Your task to perform on an android device: What's on my calendar tomorrow? Image 0: 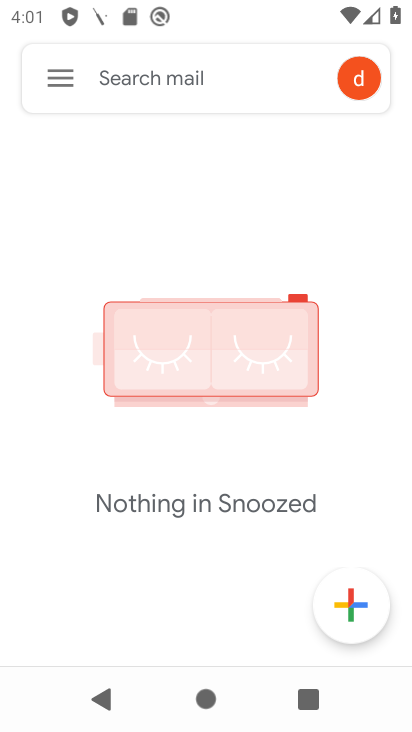
Step 0: press home button
Your task to perform on an android device: What's on my calendar tomorrow? Image 1: 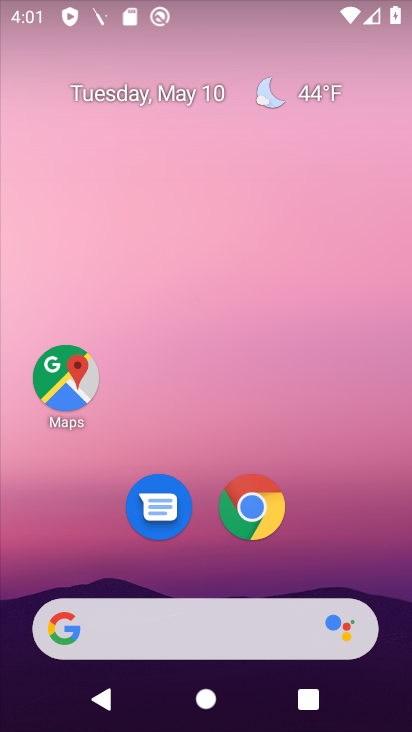
Step 1: drag from (282, 594) to (310, 105)
Your task to perform on an android device: What's on my calendar tomorrow? Image 2: 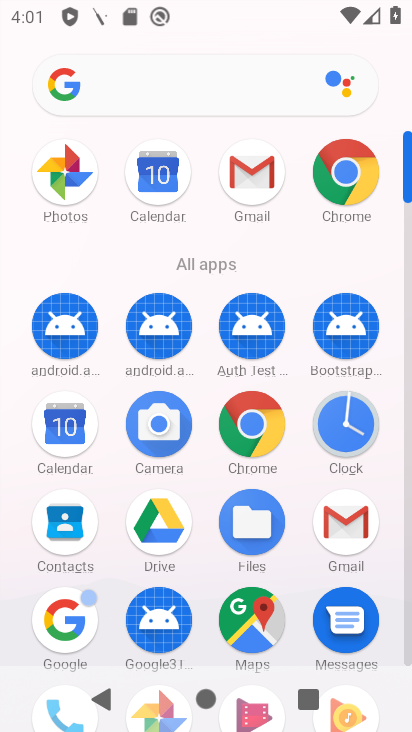
Step 2: click (47, 436)
Your task to perform on an android device: What's on my calendar tomorrow? Image 3: 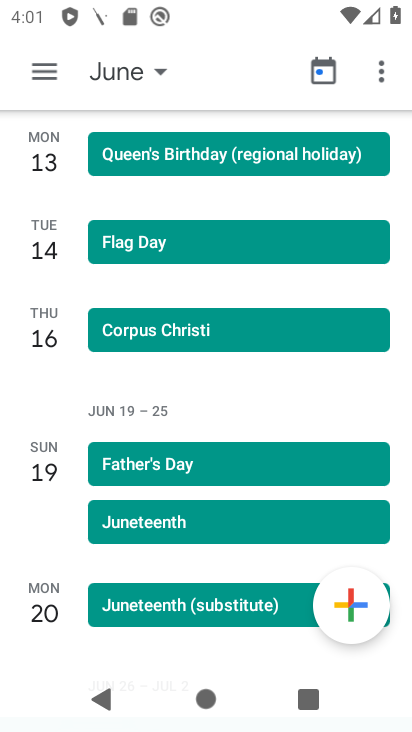
Step 3: click (32, 73)
Your task to perform on an android device: What's on my calendar tomorrow? Image 4: 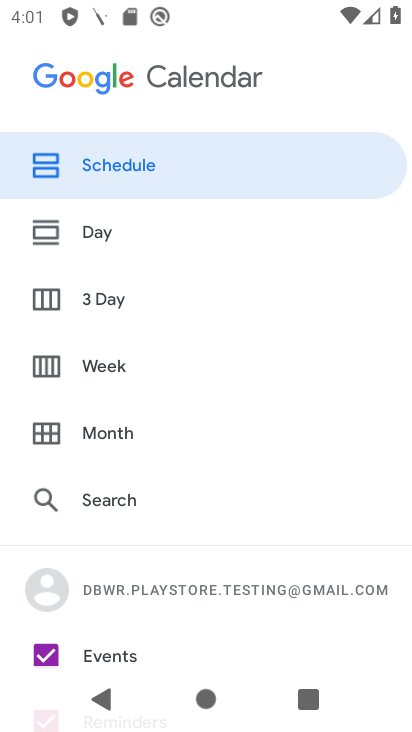
Step 4: click (129, 452)
Your task to perform on an android device: What's on my calendar tomorrow? Image 5: 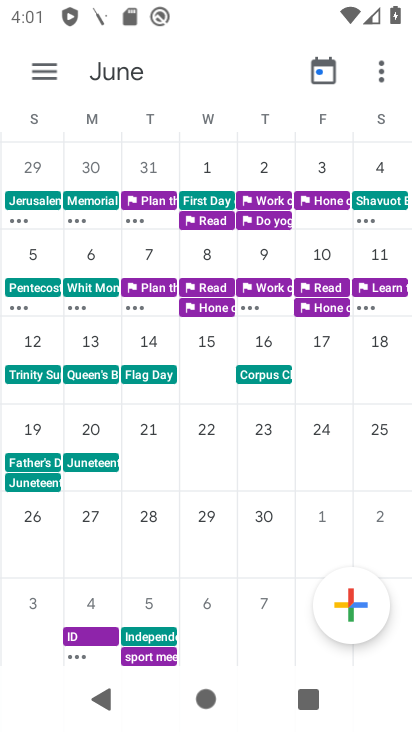
Step 5: drag from (127, 341) to (400, 433)
Your task to perform on an android device: What's on my calendar tomorrow? Image 6: 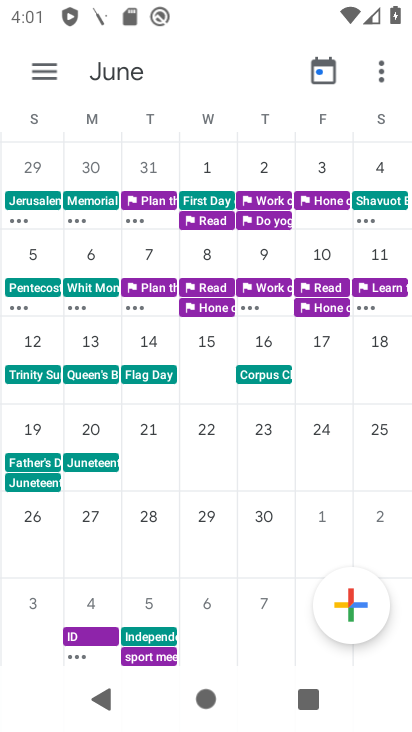
Step 6: drag from (40, 373) to (410, 376)
Your task to perform on an android device: What's on my calendar tomorrow? Image 7: 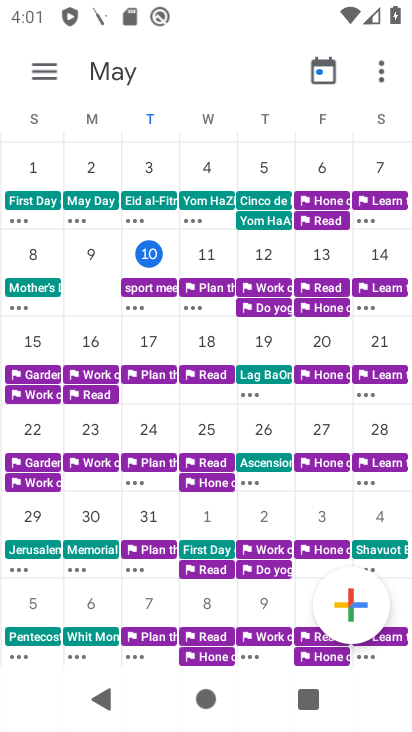
Step 7: click (201, 253)
Your task to perform on an android device: What's on my calendar tomorrow? Image 8: 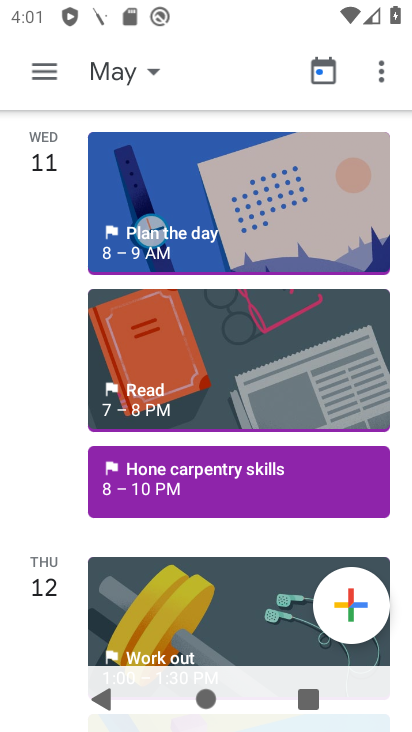
Step 8: task complete